Your task to perform on an android device: Turn on the flashlight Image 0: 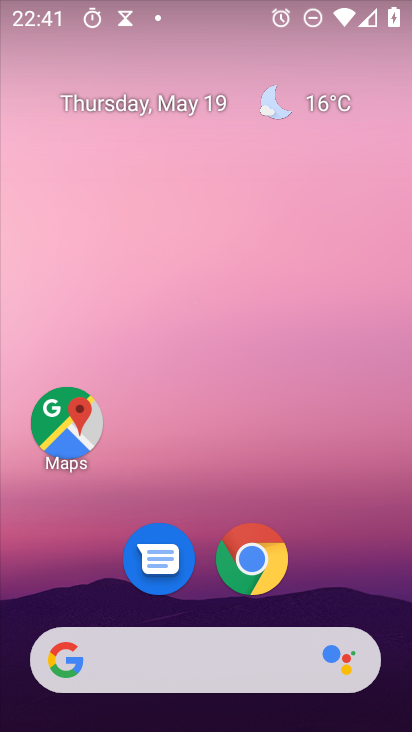
Step 0: drag from (212, 715) to (205, 232)
Your task to perform on an android device: Turn on the flashlight Image 1: 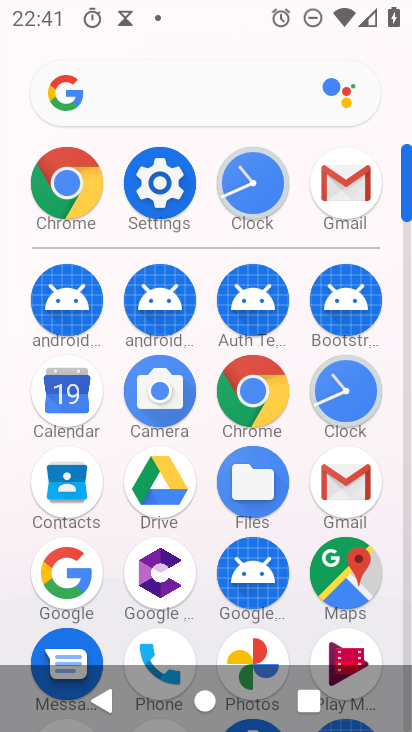
Step 1: click (151, 182)
Your task to perform on an android device: Turn on the flashlight Image 2: 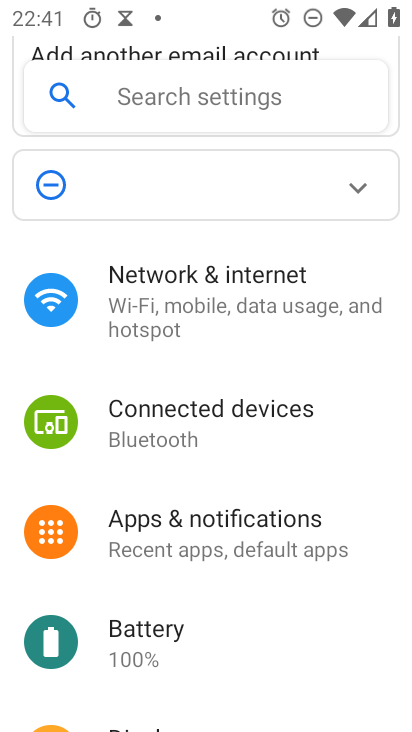
Step 2: task complete